Your task to perform on an android device: Open Yahoo.com Image 0: 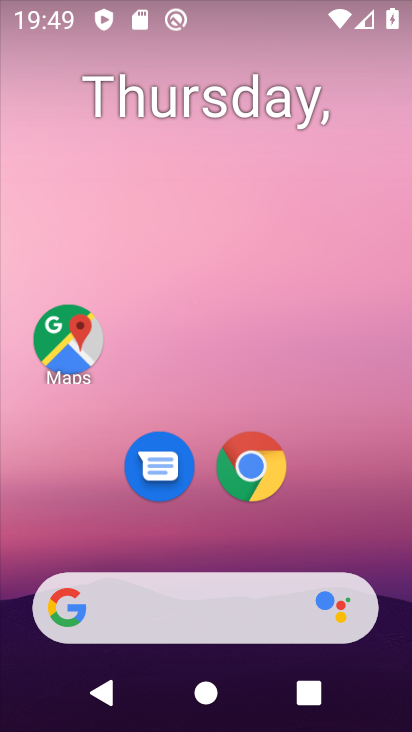
Step 0: click (208, 621)
Your task to perform on an android device: Open Yahoo.com Image 1: 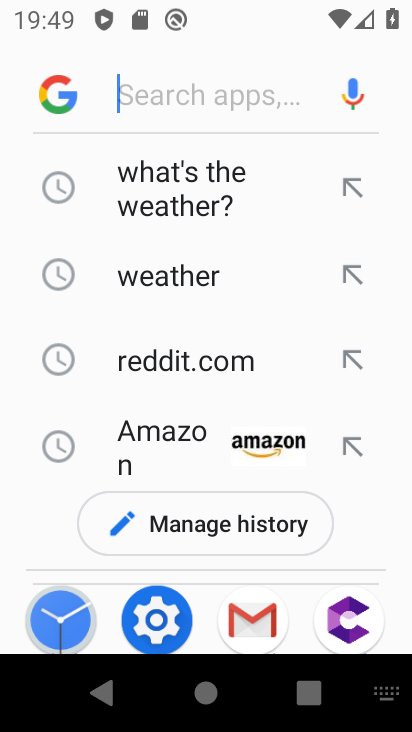
Step 1: type "Yahoo.com"
Your task to perform on an android device: Open Yahoo.com Image 2: 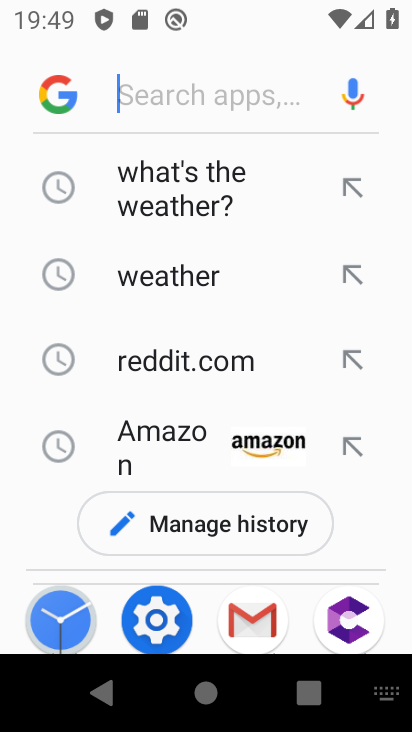
Step 2: click (182, 102)
Your task to perform on an android device: Open Yahoo.com Image 3: 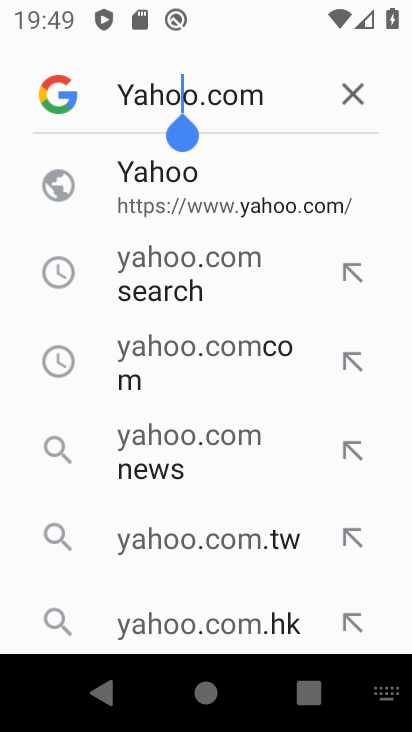
Step 3: click (150, 171)
Your task to perform on an android device: Open Yahoo.com Image 4: 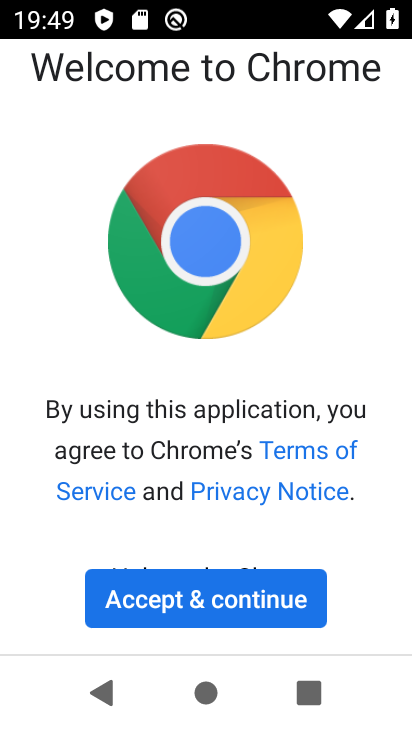
Step 4: click (227, 594)
Your task to perform on an android device: Open Yahoo.com Image 5: 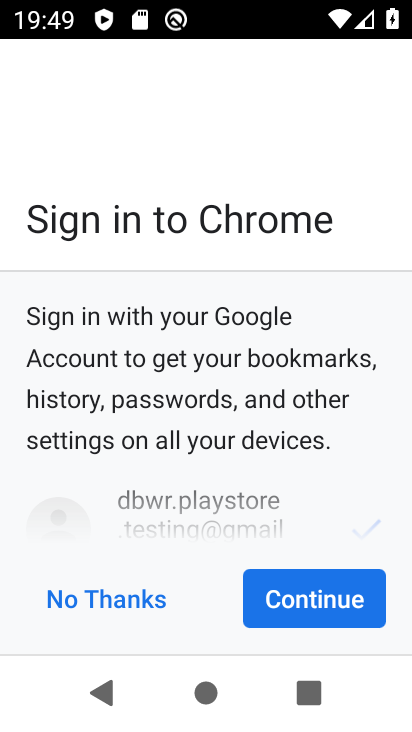
Step 5: click (320, 603)
Your task to perform on an android device: Open Yahoo.com Image 6: 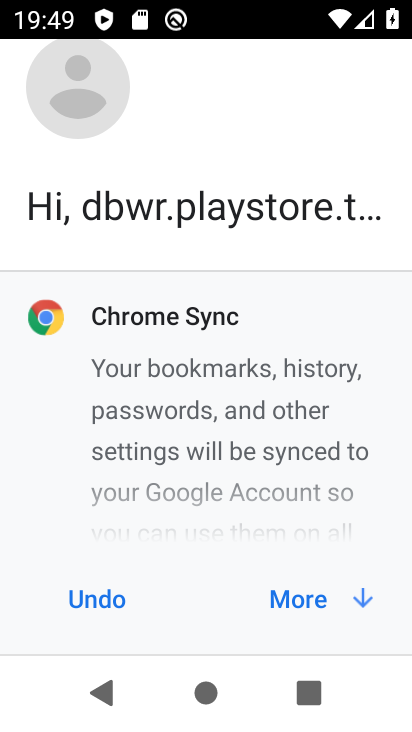
Step 6: click (320, 603)
Your task to perform on an android device: Open Yahoo.com Image 7: 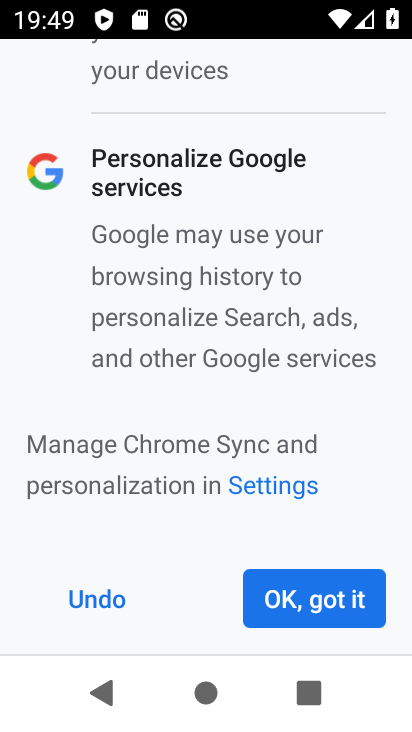
Step 7: click (320, 603)
Your task to perform on an android device: Open Yahoo.com Image 8: 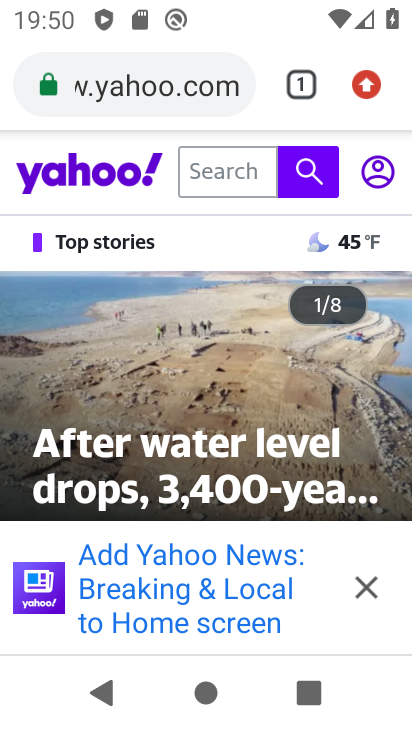
Step 8: task complete